Your task to perform on an android device: create a new album in the google photos Image 0: 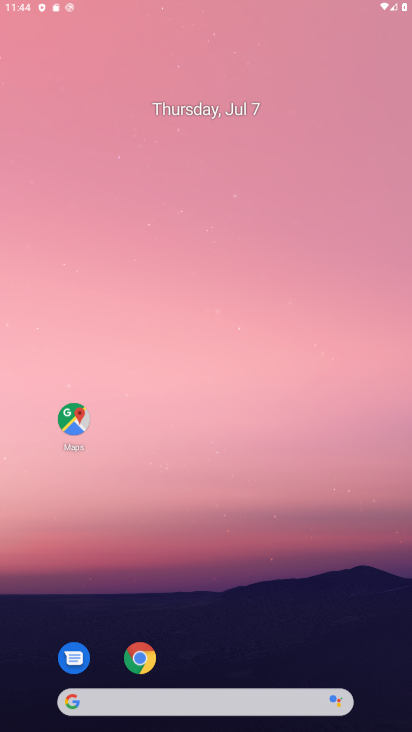
Step 0: drag from (139, 46) to (234, 153)
Your task to perform on an android device: create a new album in the google photos Image 1: 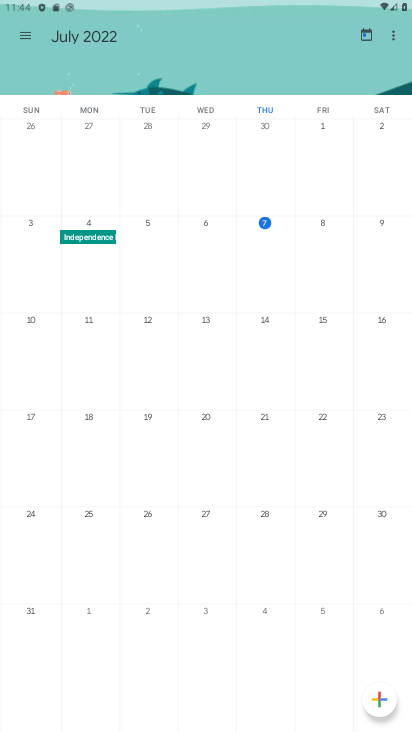
Step 1: press home button
Your task to perform on an android device: create a new album in the google photos Image 2: 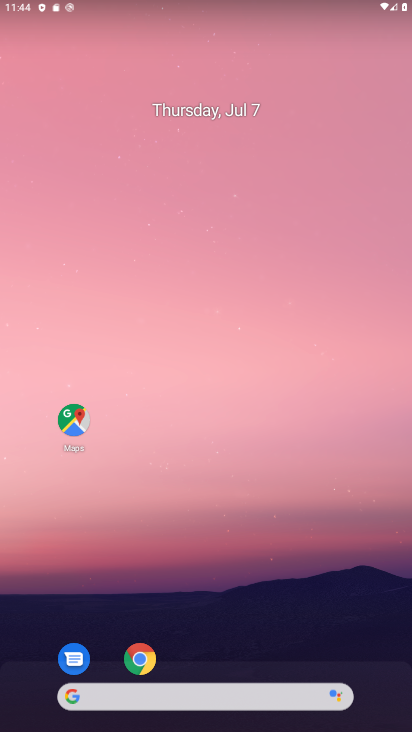
Step 2: drag from (205, 436) to (171, 75)
Your task to perform on an android device: create a new album in the google photos Image 3: 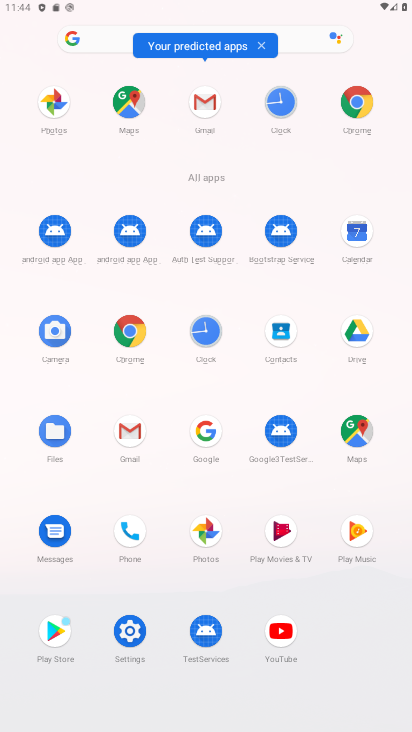
Step 3: click (51, 107)
Your task to perform on an android device: create a new album in the google photos Image 4: 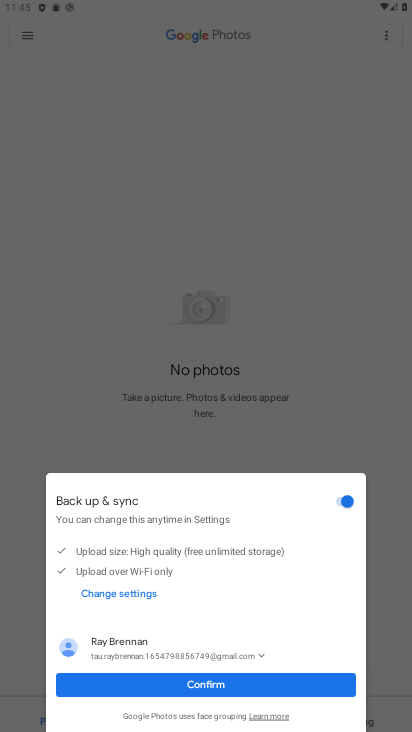
Step 4: click (223, 684)
Your task to perform on an android device: create a new album in the google photos Image 5: 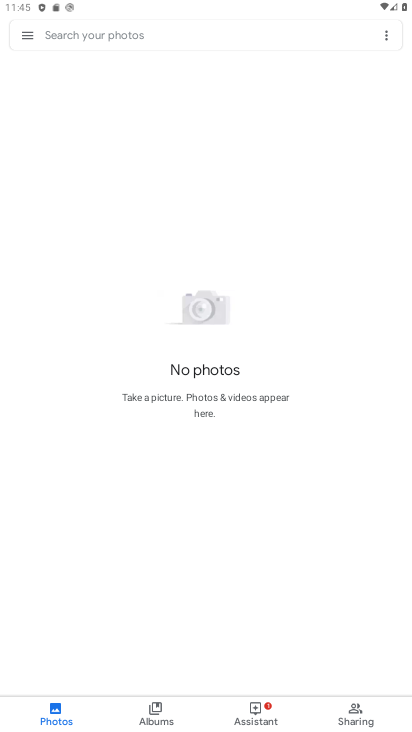
Step 5: click (147, 713)
Your task to perform on an android device: create a new album in the google photos Image 6: 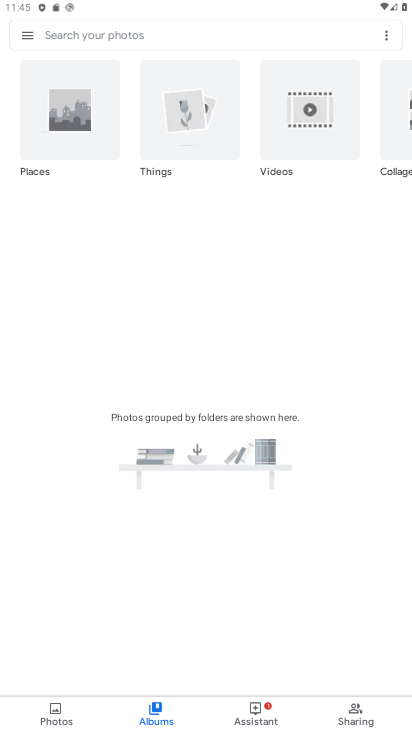
Step 6: click (383, 32)
Your task to perform on an android device: create a new album in the google photos Image 7: 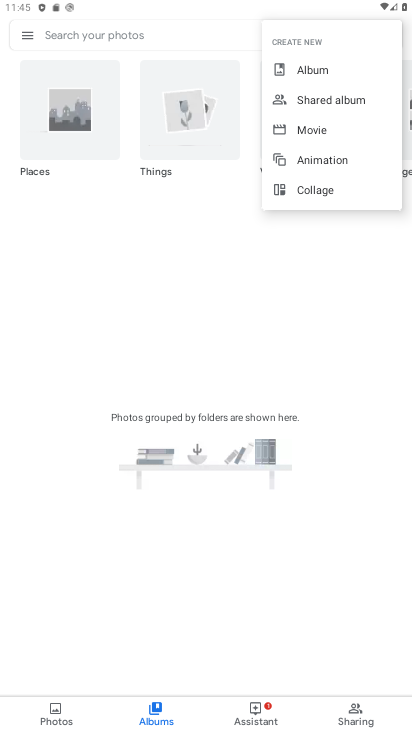
Step 7: click (318, 69)
Your task to perform on an android device: create a new album in the google photos Image 8: 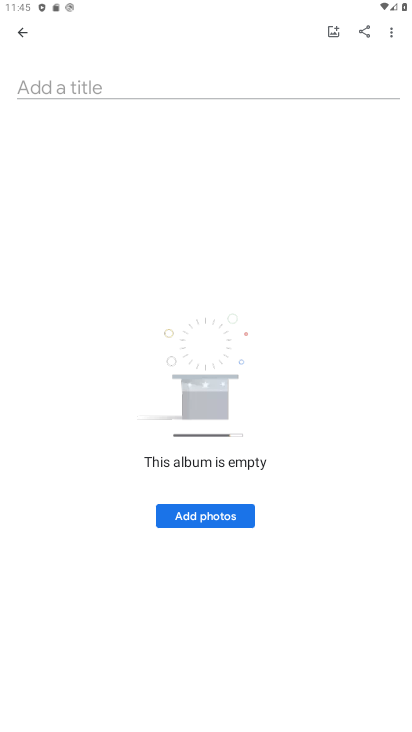
Step 8: click (53, 85)
Your task to perform on an android device: create a new album in the google photos Image 9: 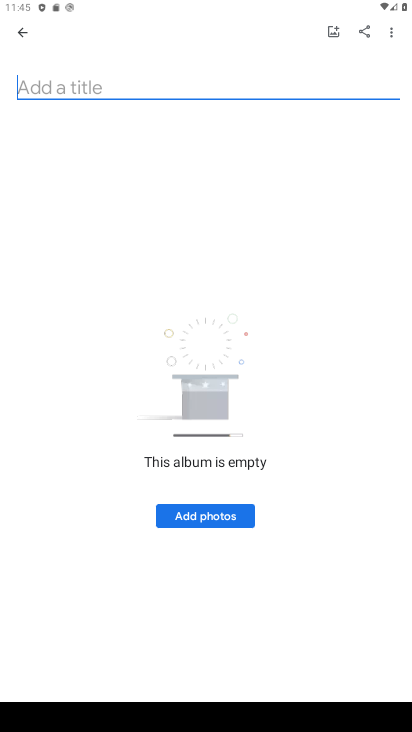
Step 9: type "aaaaa"
Your task to perform on an android device: create a new album in the google photos Image 10: 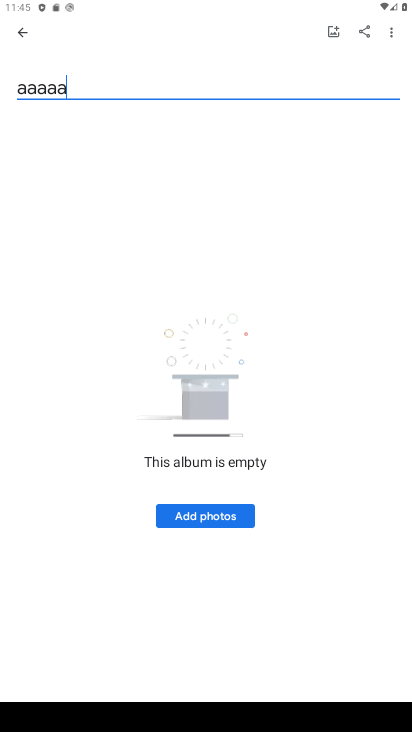
Step 10: click (330, 26)
Your task to perform on an android device: create a new album in the google photos Image 11: 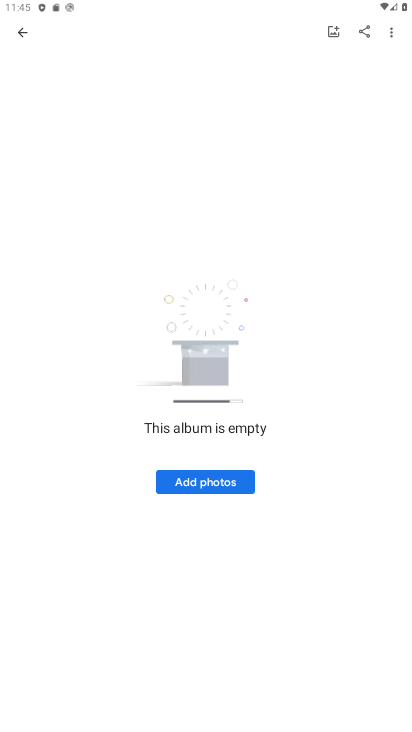
Step 11: task complete